Your task to perform on an android device: delete a single message in the gmail app Image 0: 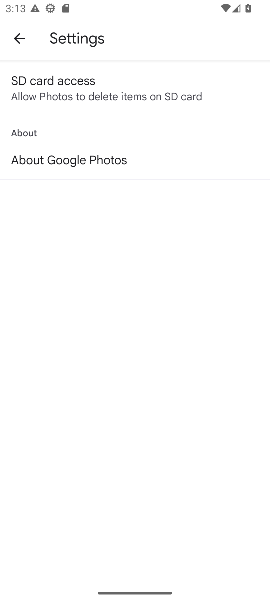
Step 0: press home button
Your task to perform on an android device: delete a single message in the gmail app Image 1: 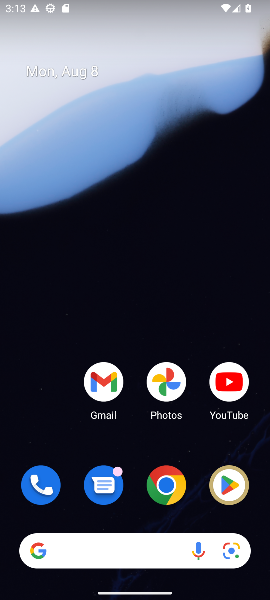
Step 1: drag from (157, 329) to (165, 118)
Your task to perform on an android device: delete a single message in the gmail app Image 2: 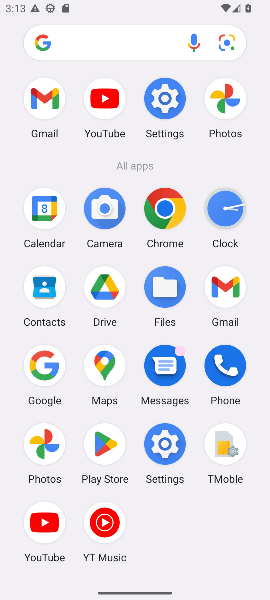
Step 2: click (51, 93)
Your task to perform on an android device: delete a single message in the gmail app Image 3: 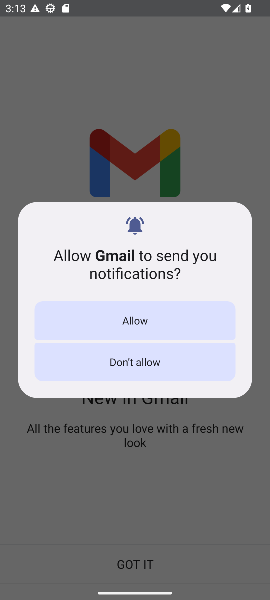
Step 3: click (143, 363)
Your task to perform on an android device: delete a single message in the gmail app Image 4: 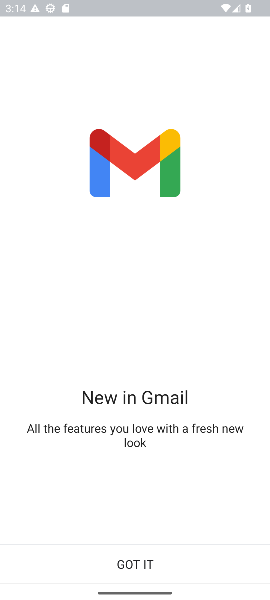
Step 4: click (138, 558)
Your task to perform on an android device: delete a single message in the gmail app Image 5: 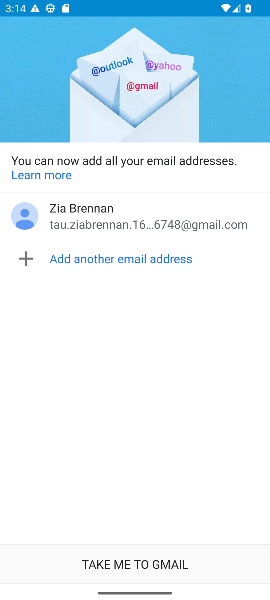
Step 5: click (147, 564)
Your task to perform on an android device: delete a single message in the gmail app Image 6: 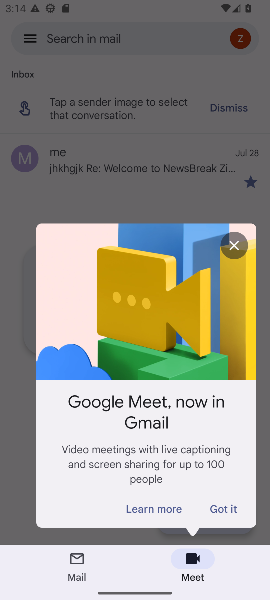
Step 6: click (233, 247)
Your task to perform on an android device: delete a single message in the gmail app Image 7: 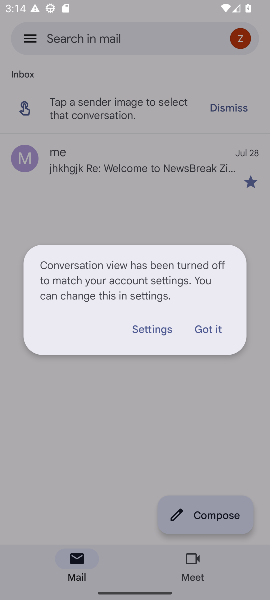
Step 7: click (215, 319)
Your task to perform on an android device: delete a single message in the gmail app Image 8: 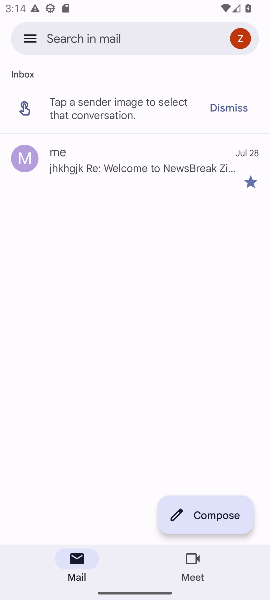
Step 8: task complete